Your task to perform on an android device: toggle translation in the chrome app Image 0: 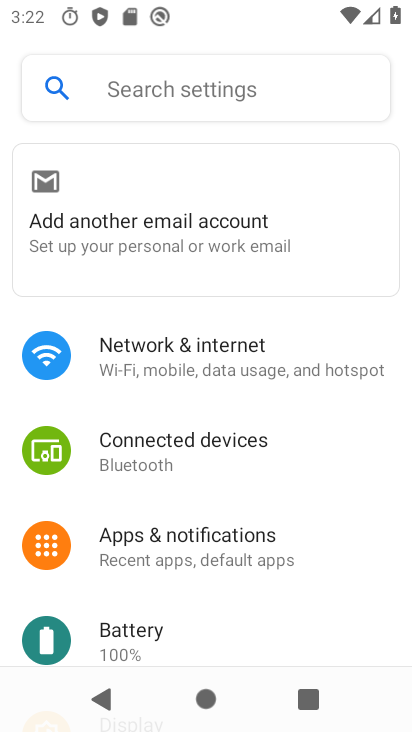
Step 0: press home button
Your task to perform on an android device: toggle translation in the chrome app Image 1: 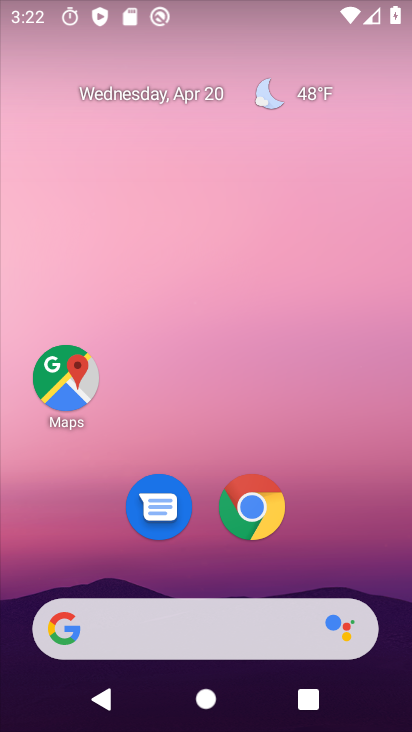
Step 1: click (249, 541)
Your task to perform on an android device: toggle translation in the chrome app Image 2: 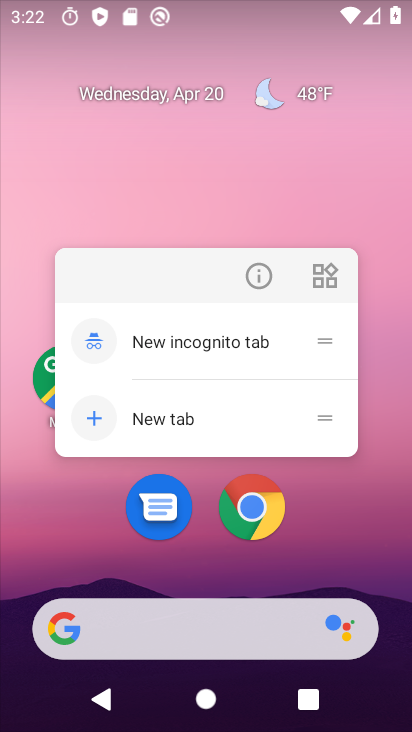
Step 2: click (242, 527)
Your task to perform on an android device: toggle translation in the chrome app Image 3: 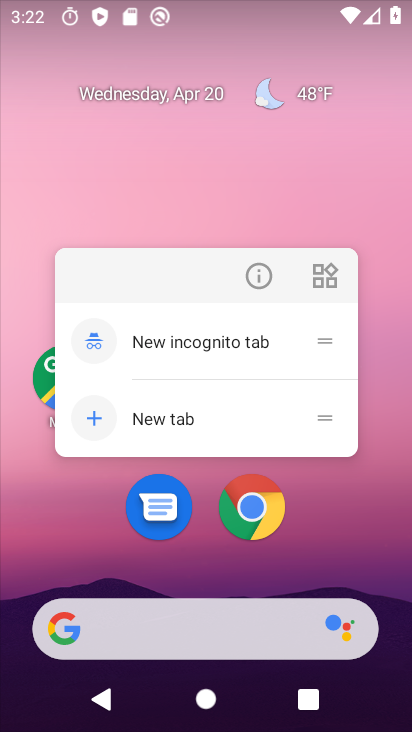
Step 3: click (242, 527)
Your task to perform on an android device: toggle translation in the chrome app Image 4: 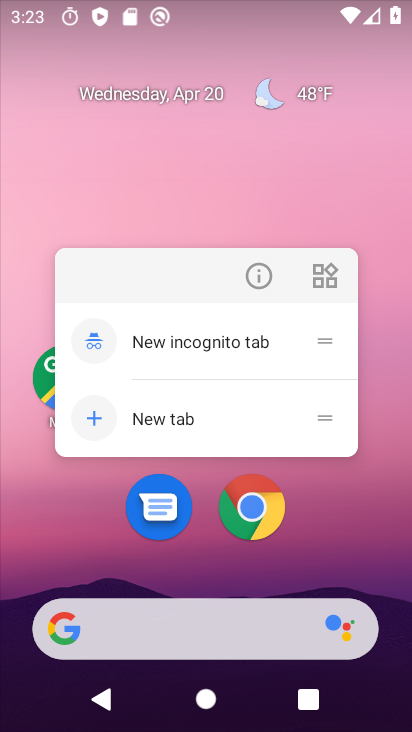
Step 4: click (251, 517)
Your task to perform on an android device: toggle translation in the chrome app Image 5: 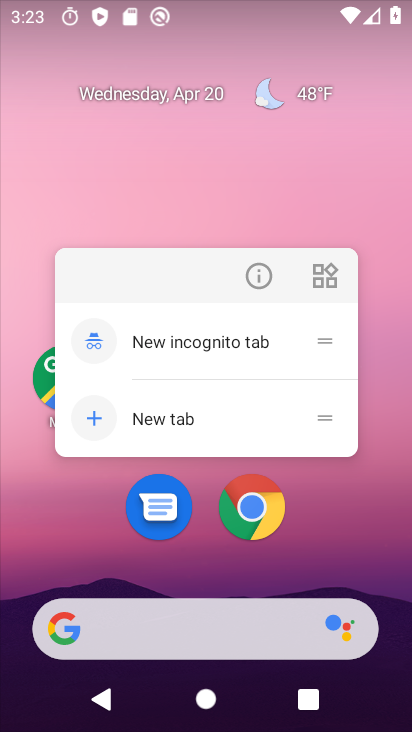
Step 5: click (261, 508)
Your task to perform on an android device: toggle translation in the chrome app Image 6: 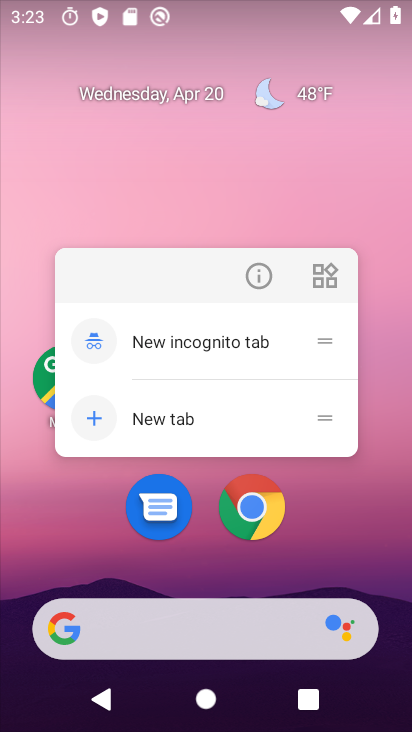
Step 6: click (261, 508)
Your task to perform on an android device: toggle translation in the chrome app Image 7: 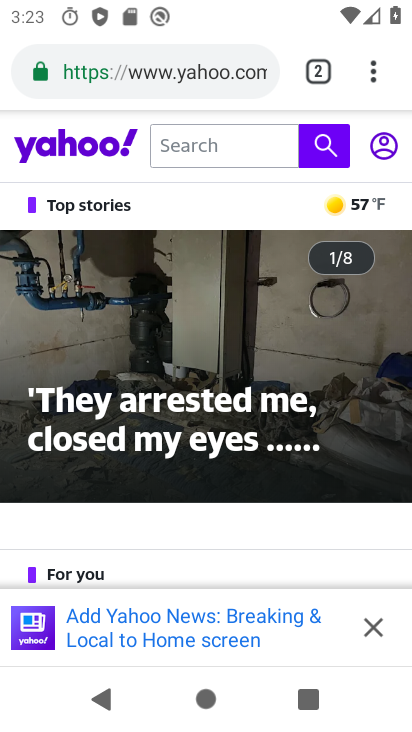
Step 7: drag from (359, 49) to (238, 489)
Your task to perform on an android device: toggle translation in the chrome app Image 8: 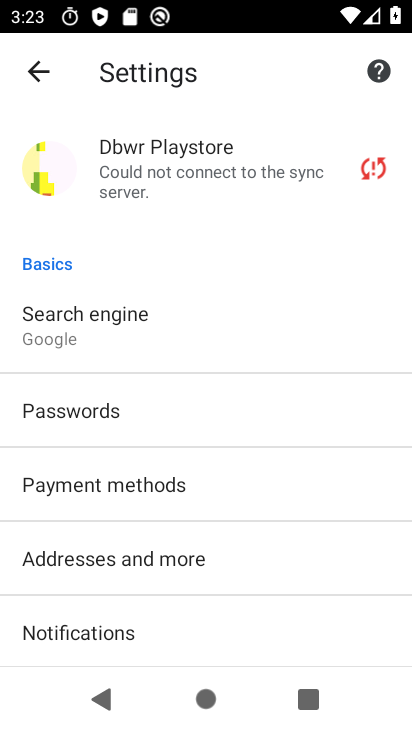
Step 8: drag from (91, 584) to (107, 336)
Your task to perform on an android device: toggle translation in the chrome app Image 9: 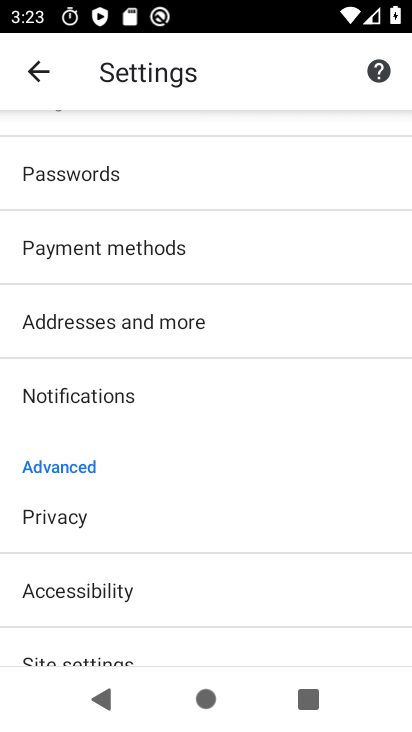
Step 9: drag from (101, 549) to (86, 346)
Your task to perform on an android device: toggle translation in the chrome app Image 10: 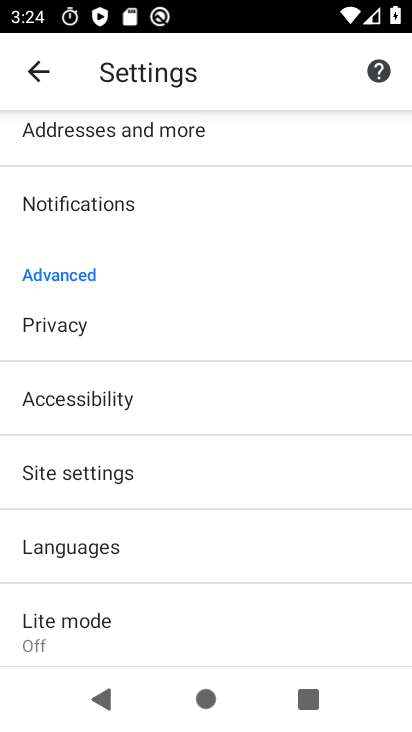
Step 10: click (78, 526)
Your task to perform on an android device: toggle translation in the chrome app Image 11: 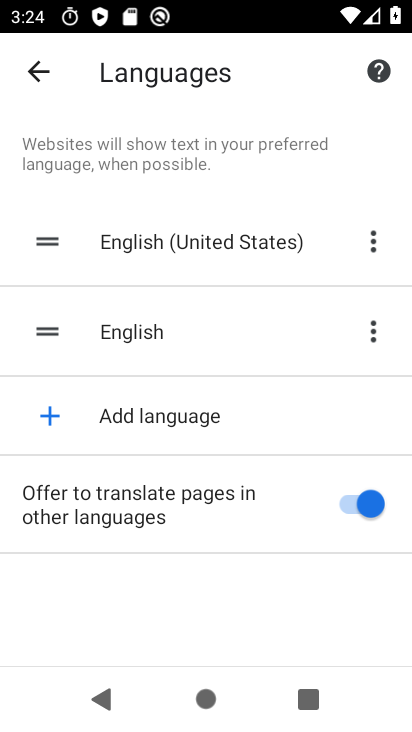
Step 11: click (366, 523)
Your task to perform on an android device: toggle translation in the chrome app Image 12: 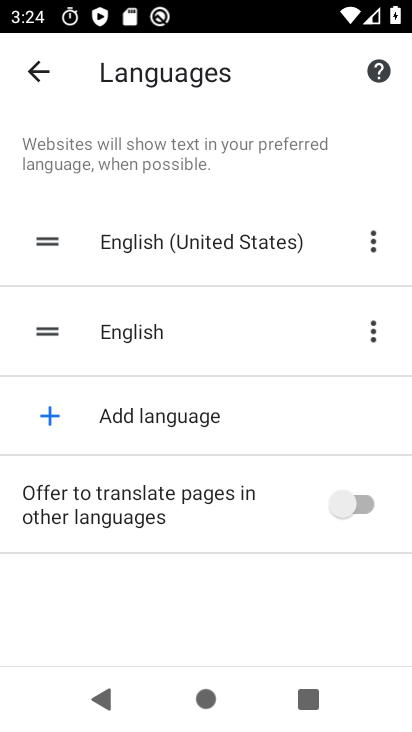
Step 12: task complete